Your task to perform on an android device: Check the news Image 0: 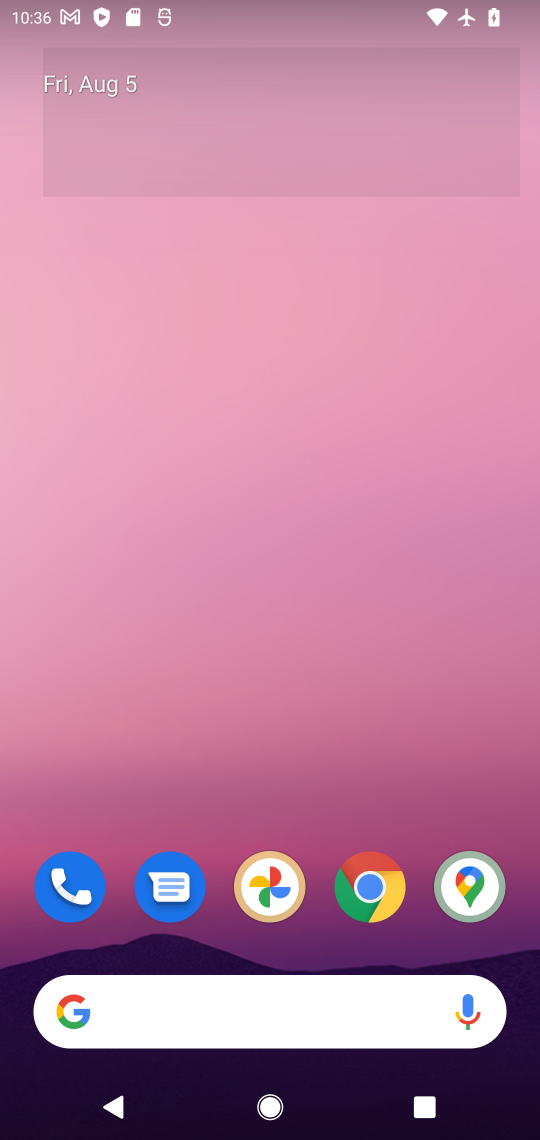
Step 0: click (70, 1004)
Your task to perform on an android device: Check the news Image 1: 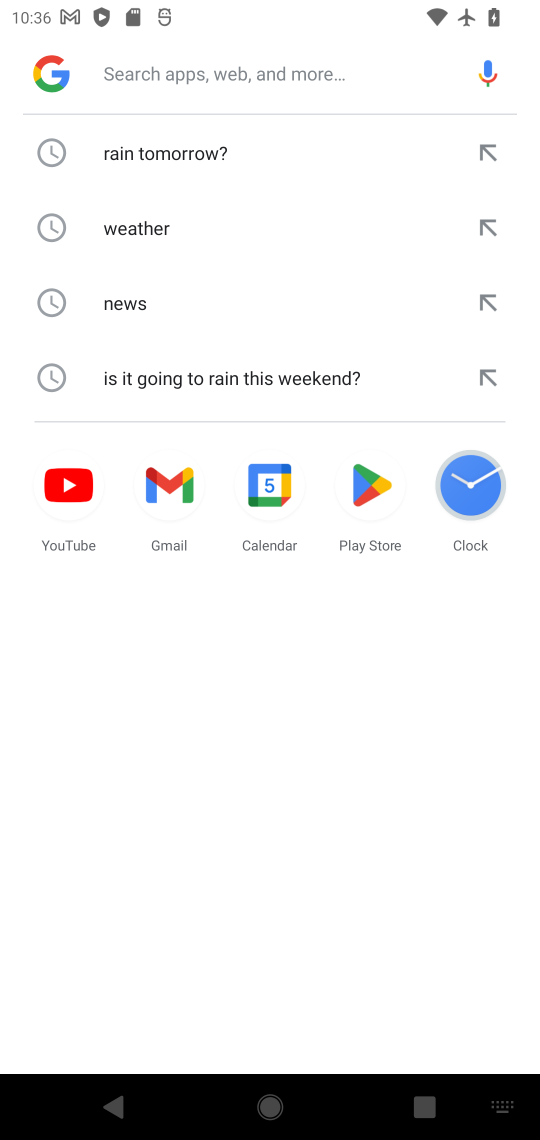
Step 1: click (138, 298)
Your task to perform on an android device: Check the news Image 2: 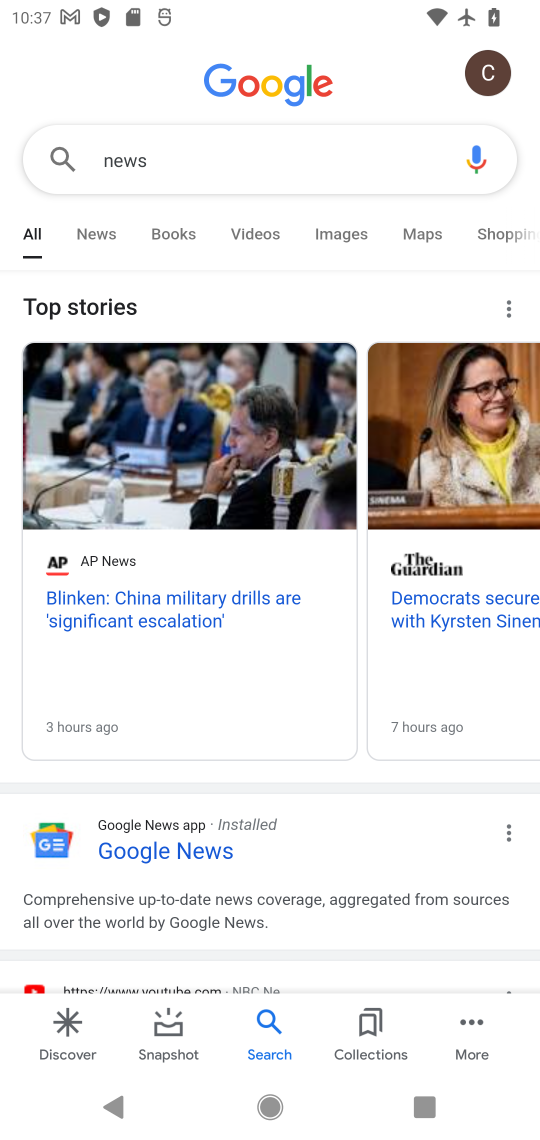
Step 2: task complete